Your task to perform on an android device: check android version Image 0: 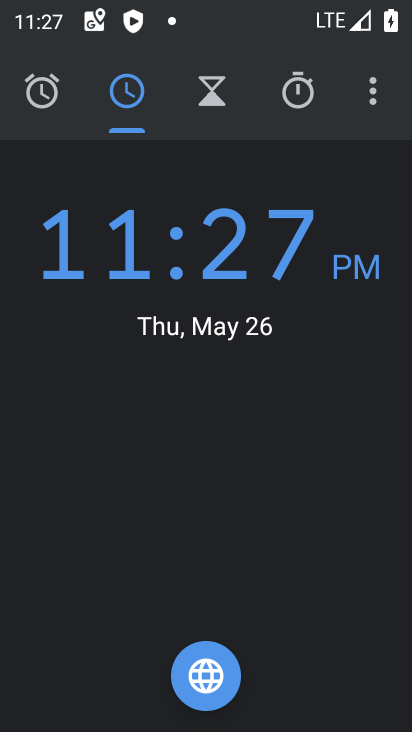
Step 0: press home button
Your task to perform on an android device: check android version Image 1: 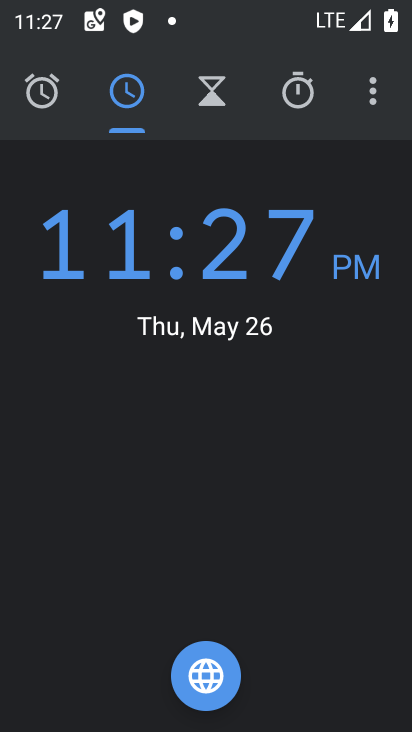
Step 1: press home button
Your task to perform on an android device: check android version Image 2: 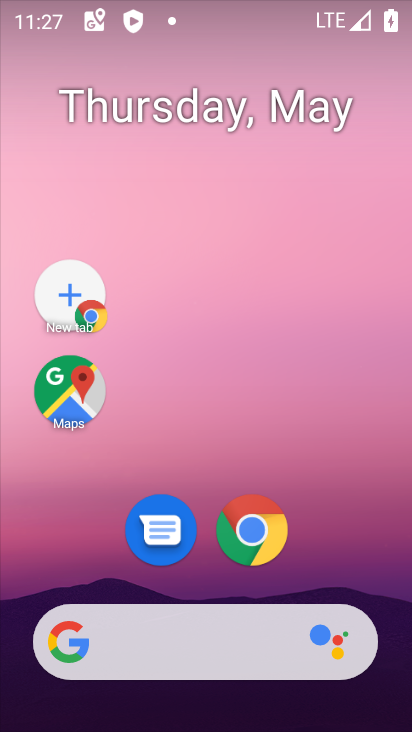
Step 2: click (339, 208)
Your task to perform on an android device: check android version Image 3: 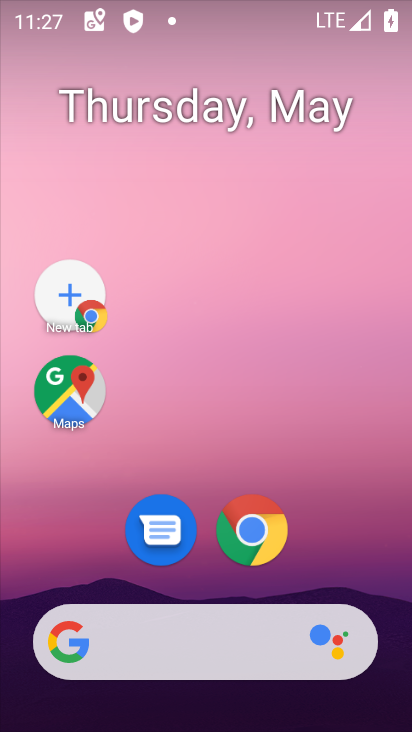
Step 3: drag from (249, 652) to (231, 145)
Your task to perform on an android device: check android version Image 4: 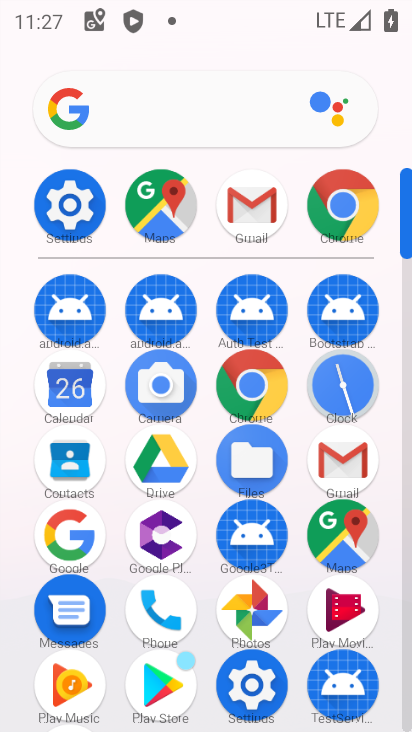
Step 4: click (251, 681)
Your task to perform on an android device: check android version Image 5: 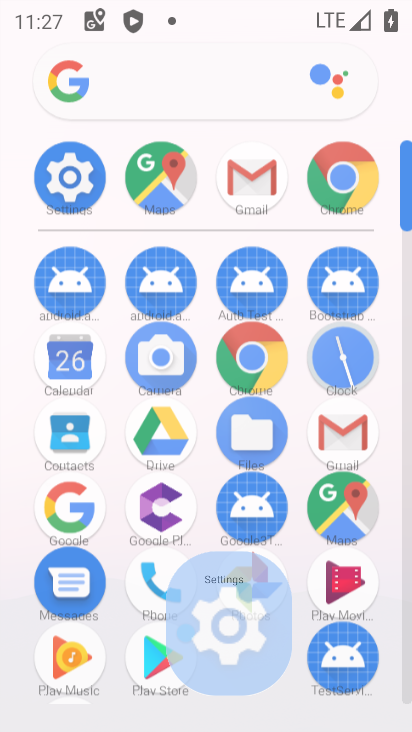
Step 5: click (251, 681)
Your task to perform on an android device: check android version Image 6: 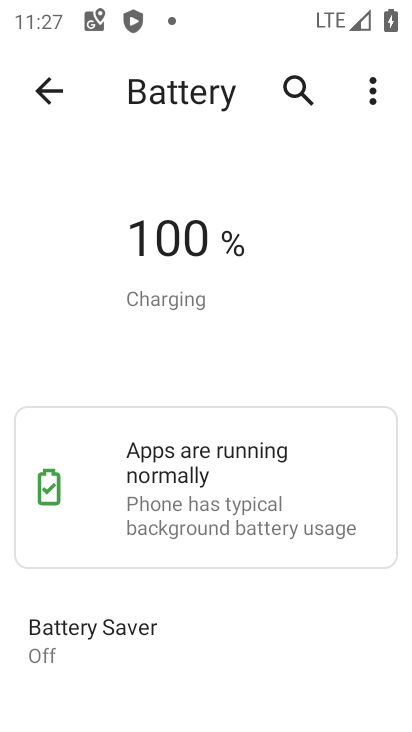
Step 6: click (49, 97)
Your task to perform on an android device: check android version Image 7: 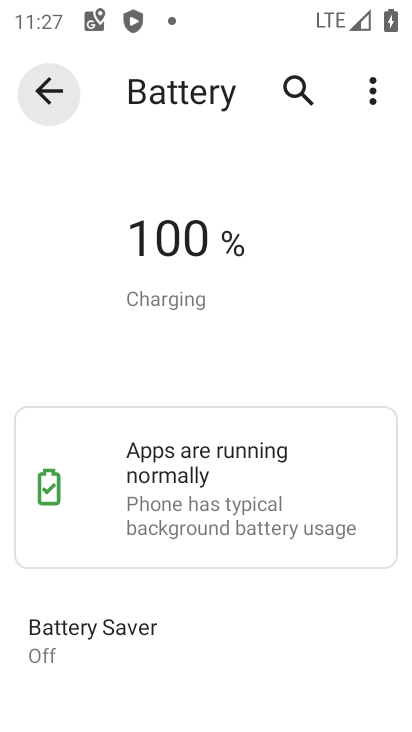
Step 7: click (51, 90)
Your task to perform on an android device: check android version Image 8: 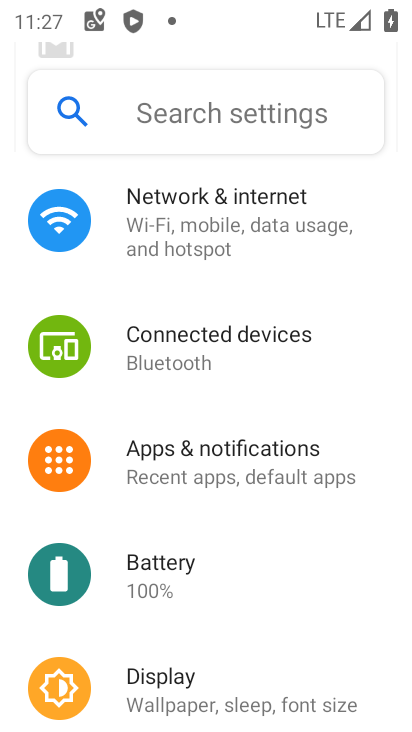
Step 8: click (37, 90)
Your task to perform on an android device: check android version Image 9: 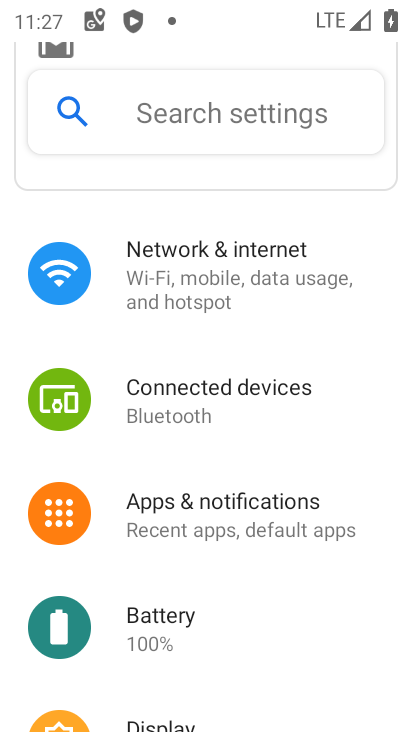
Step 9: drag from (215, 613) to (244, 271)
Your task to perform on an android device: check android version Image 10: 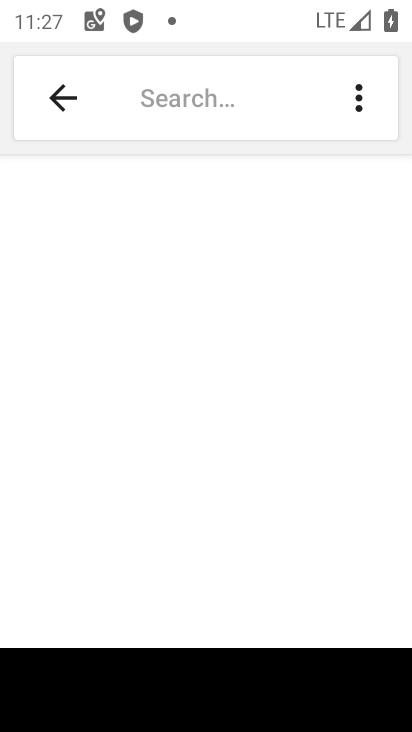
Step 10: drag from (235, 485) to (235, 223)
Your task to perform on an android device: check android version Image 11: 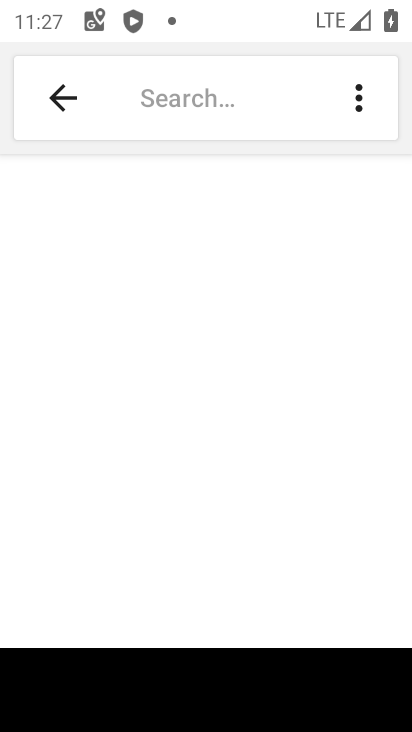
Step 11: click (51, 90)
Your task to perform on an android device: check android version Image 12: 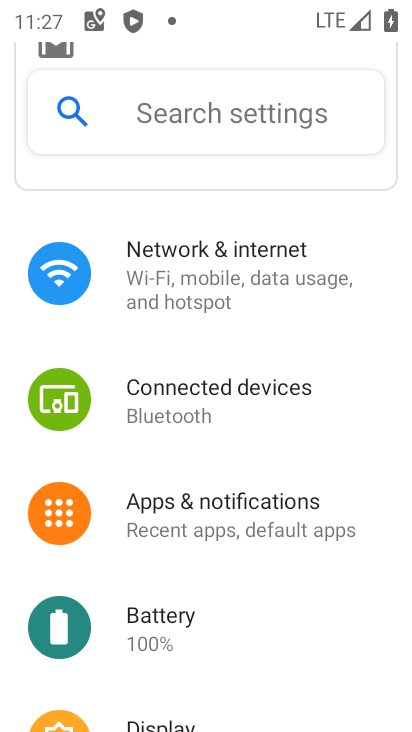
Step 12: drag from (231, 648) to (224, 256)
Your task to perform on an android device: check android version Image 13: 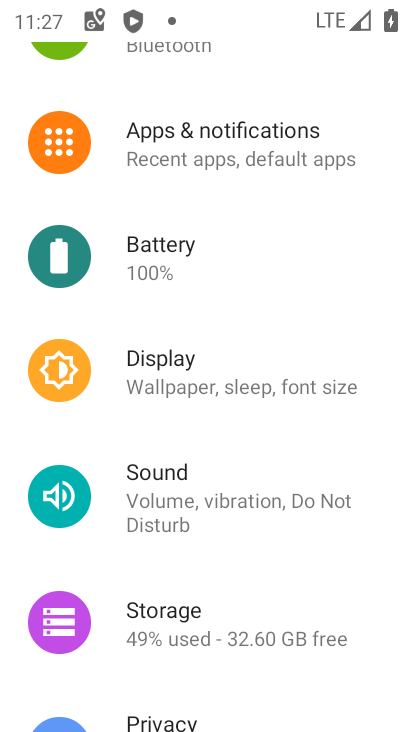
Step 13: drag from (222, 554) to (157, 280)
Your task to perform on an android device: check android version Image 14: 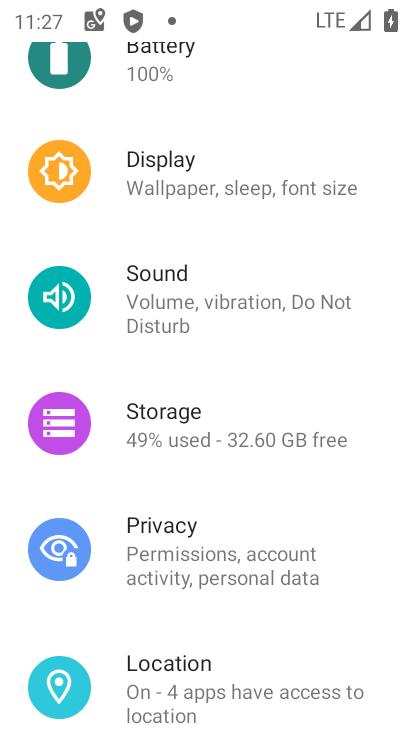
Step 14: drag from (199, 493) to (147, 207)
Your task to perform on an android device: check android version Image 15: 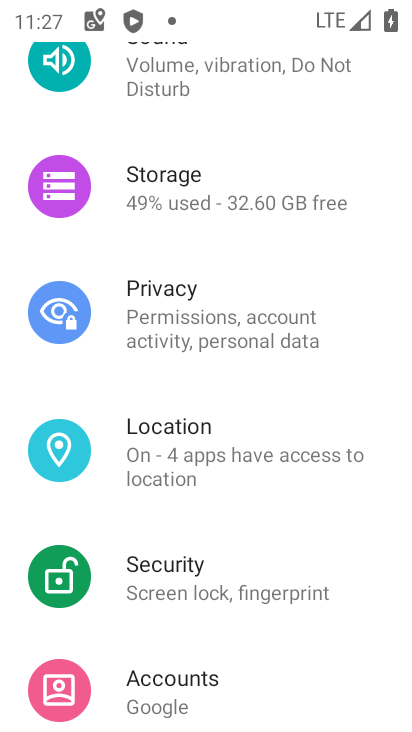
Step 15: drag from (227, 511) to (212, 191)
Your task to perform on an android device: check android version Image 16: 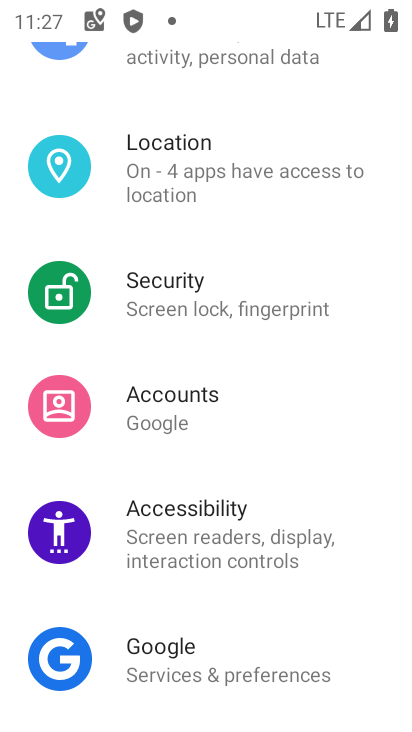
Step 16: drag from (209, 583) to (199, 208)
Your task to perform on an android device: check android version Image 17: 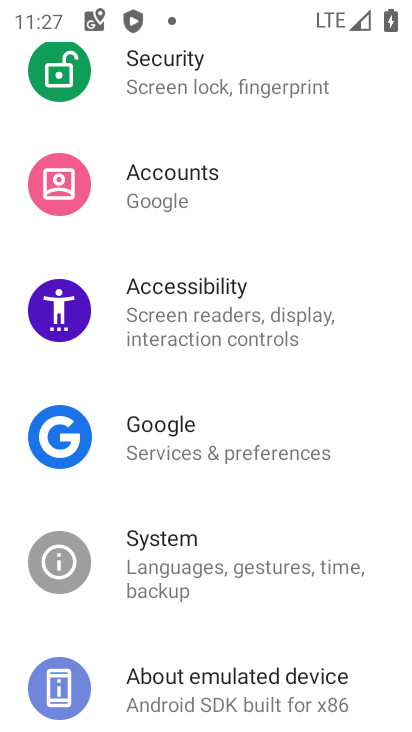
Step 17: click (195, 680)
Your task to perform on an android device: check android version Image 18: 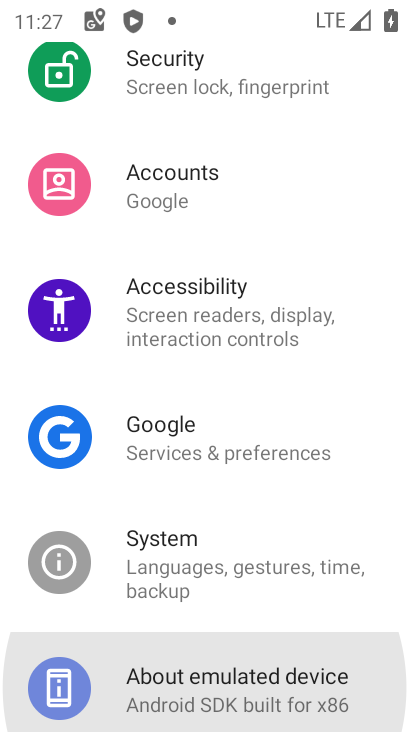
Step 18: click (193, 682)
Your task to perform on an android device: check android version Image 19: 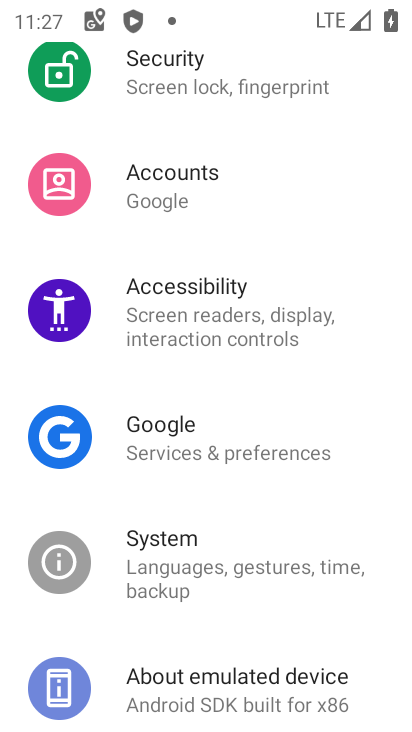
Step 19: click (194, 680)
Your task to perform on an android device: check android version Image 20: 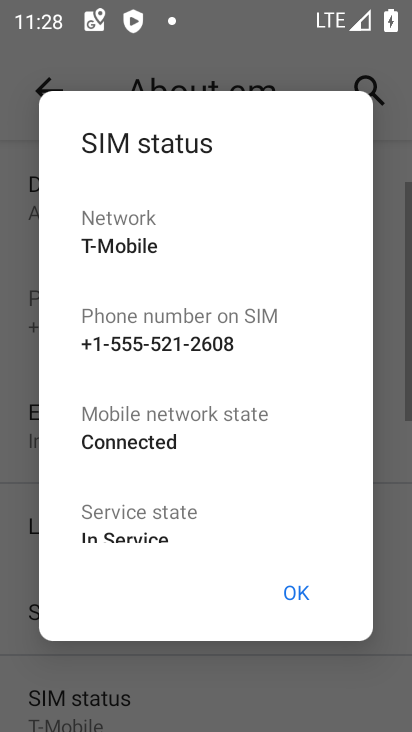
Step 20: click (308, 577)
Your task to perform on an android device: check android version Image 21: 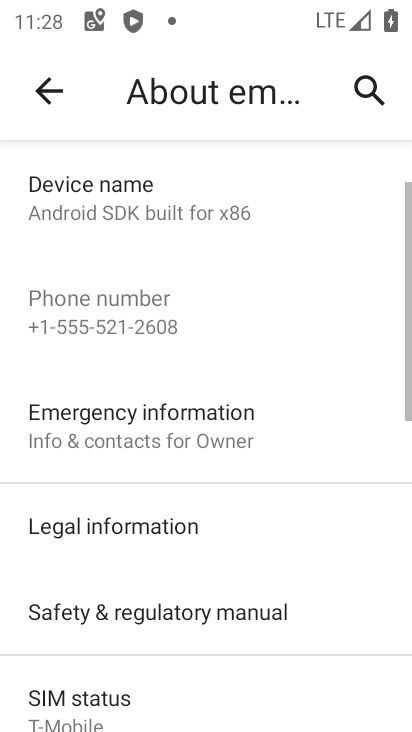
Step 21: task complete